Your task to perform on an android device: Open Chrome and go to the settings page Image 0: 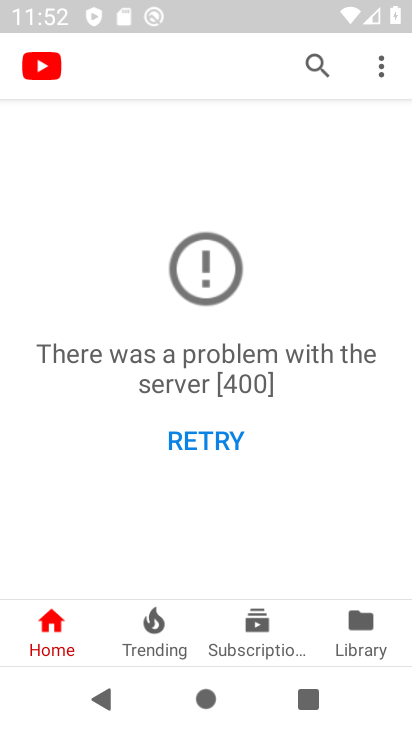
Step 0: press home button
Your task to perform on an android device: Open Chrome and go to the settings page Image 1: 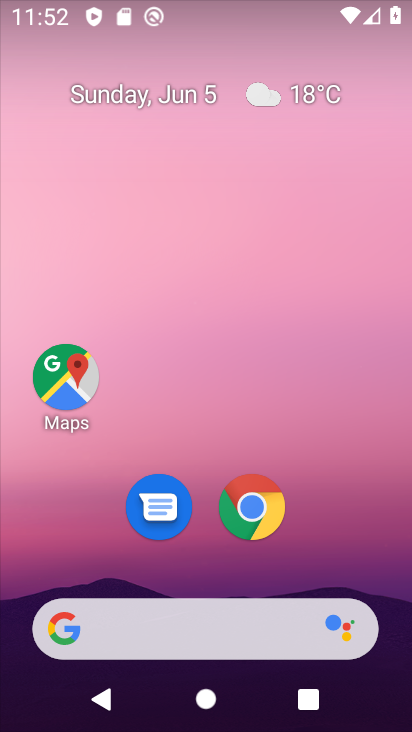
Step 1: click (244, 514)
Your task to perform on an android device: Open Chrome and go to the settings page Image 2: 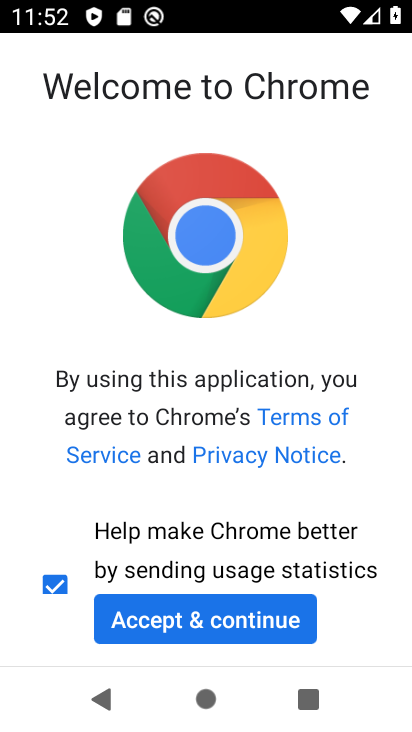
Step 2: click (223, 617)
Your task to perform on an android device: Open Chrome and go to the settings page Image 3: 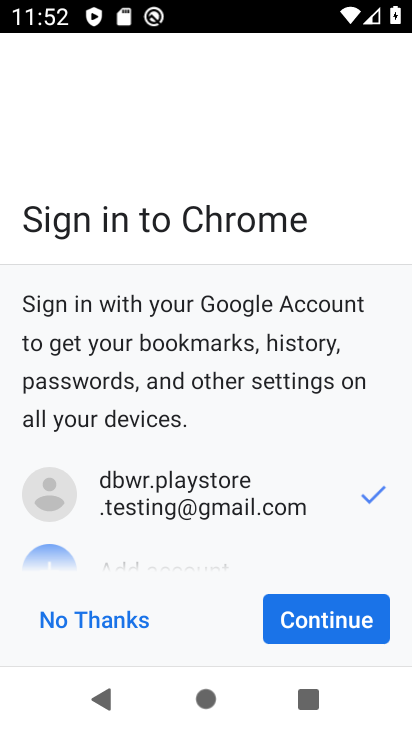
Step 3: click (353, 616)
Your task to perform on an android device: Open Chrome and go to the settings page Image 4: 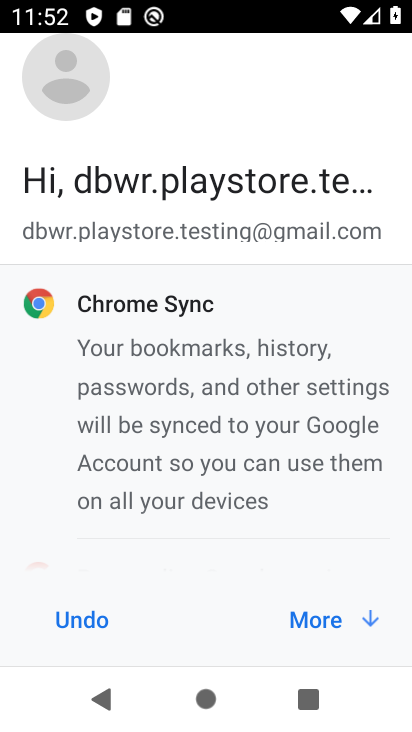
Step 4: click (353, 616)
Your task to perform on an android device: Open Chrome and go to the settings page Image 5: 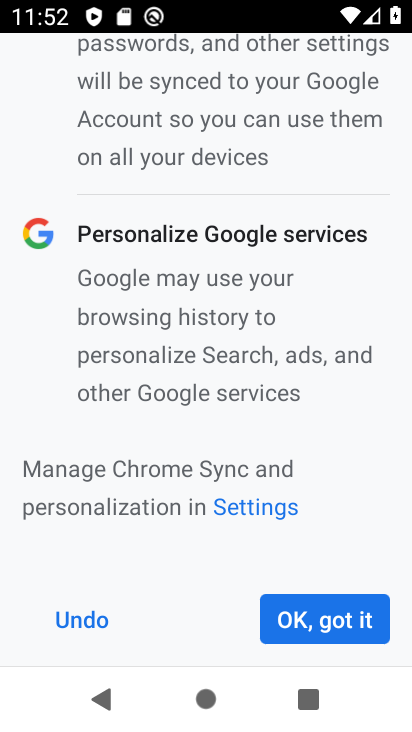
Step 5: click (353, 616)
Your task to perform on an android device: Open Chrome and go to the settings page Image 6: 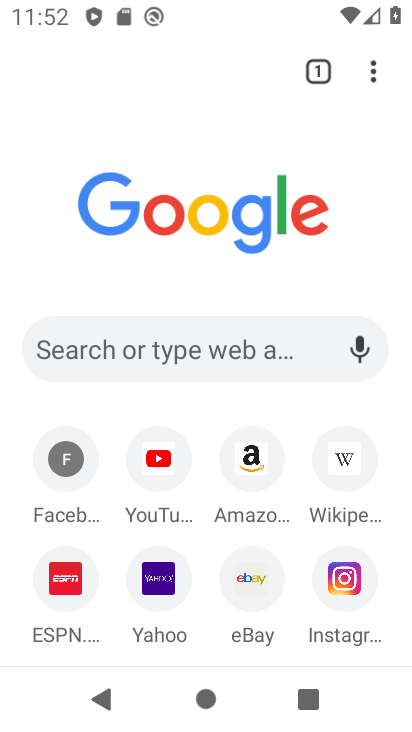
Step 6: click (369, 75)
Your task to perform on an android device: Open Chrome and go to the settings page Image 7: 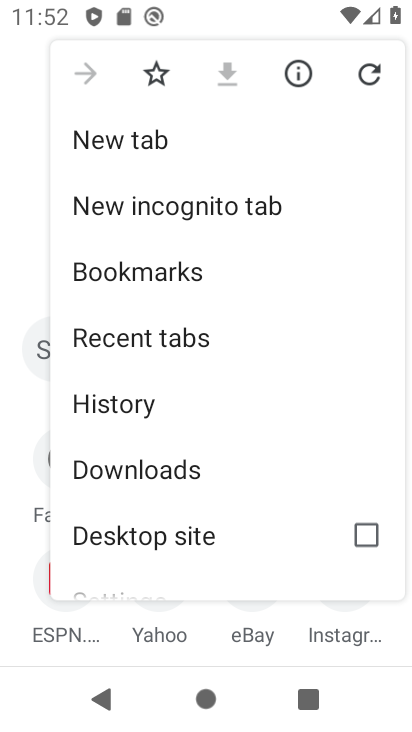
Step 7: drag from (160, 528) to (216, 44)
Your task to perform on an android device: Open Chrome and go to the settings page Image 8: 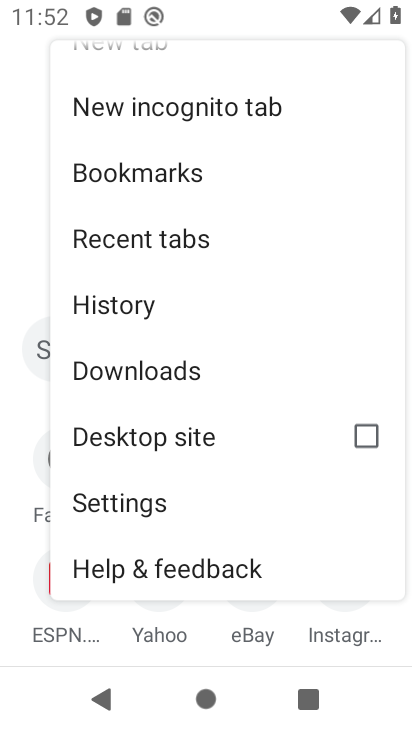
Step 8: click (151, 510)
Your task to perform on an android device: Open Chrome and go to the settings page Image 9: 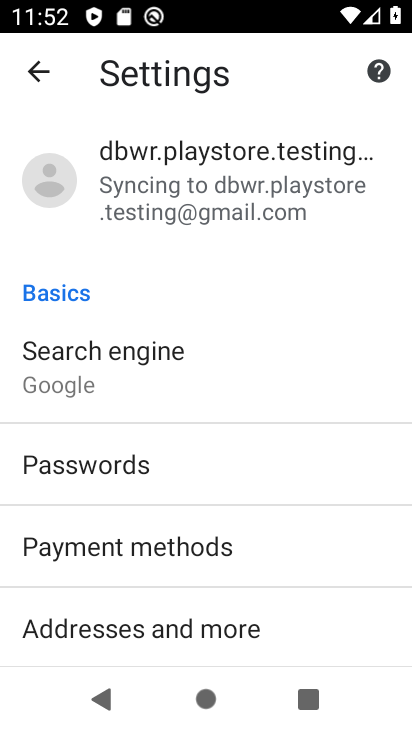
Step 9: task complete